Your task to perform on an android device: What's on my calendar tomorrow? Image 0: 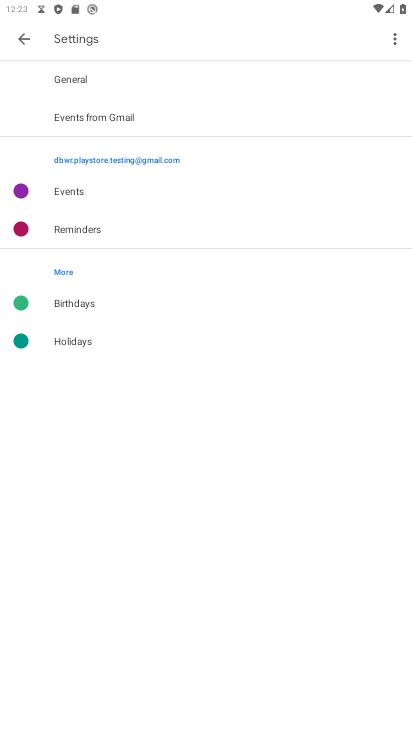
Step 0: press home button
Your task to perform on an android device: What's on my calendar tomorrow? Image 1: 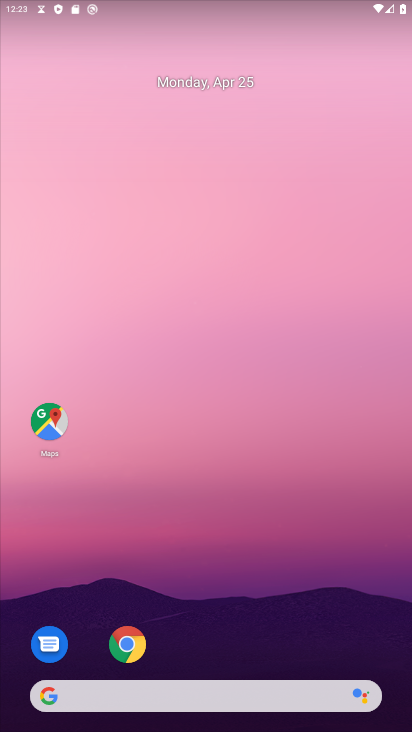
Step 1: drag from (313, 630) to (298, 8)
Your task to perform on an android device: What's on my calendar tomorrow? Image 2: 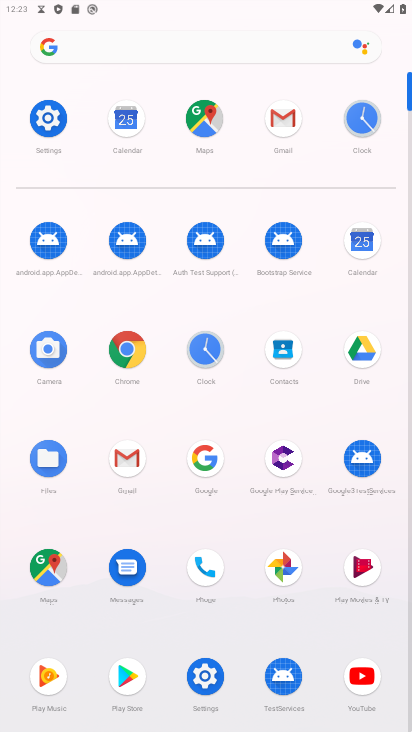
Step 2: click (359, 239)
Your task to perform on an android device: What's on my calendar tomorrow? Image 3: 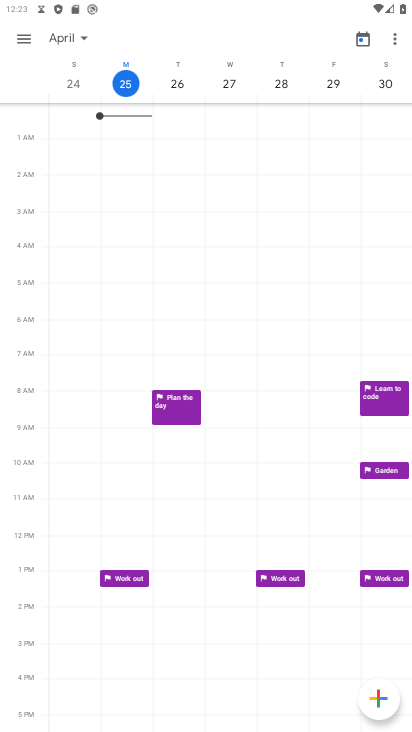
Step 3: click (81, 40)
Your task to perform on an android device: What's on my calendar tomorrow? Image 4: 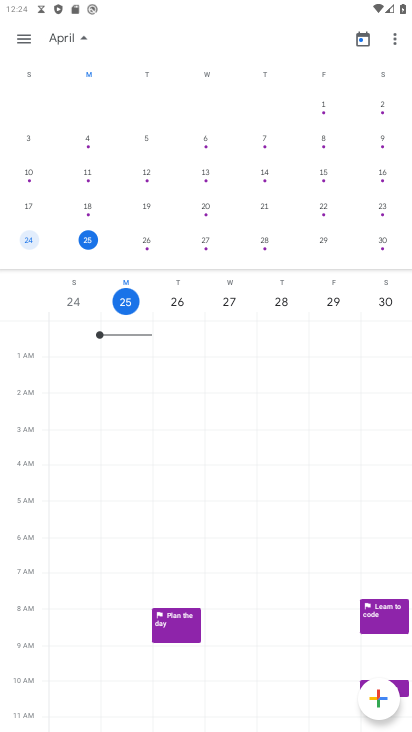
Step 4: click (92, 241)
Your task to perform on an android device: What's on my calendar tomorrow? Image 5: 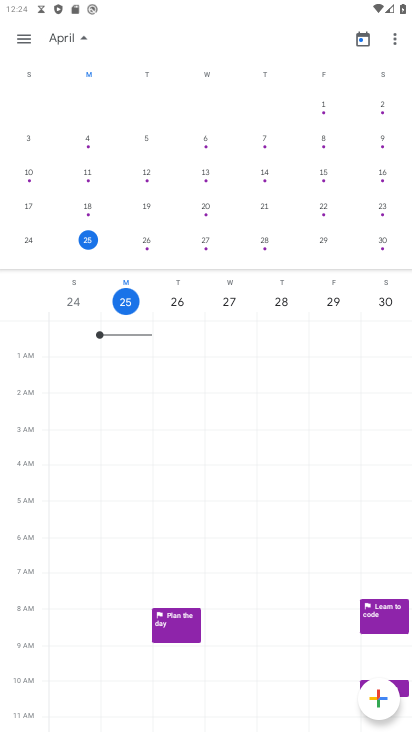
Step 5: click (22, 39)
Your task to perform on an android device: What's on my calendar tomorrow? Image 6: 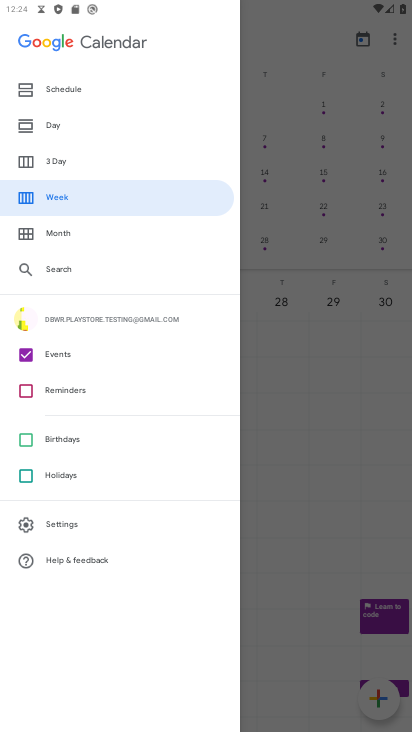
Step 6: click (59, 85)
Your task to perform on an android device: What's on my calendar tomorrow? Image 7: 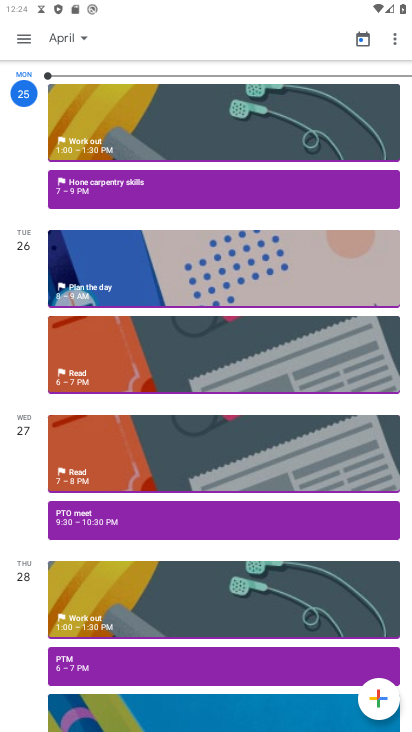
Step 7: click (121, 191)
Your task to perform on an android device: What's on my calendar tomorrow? Image 8: 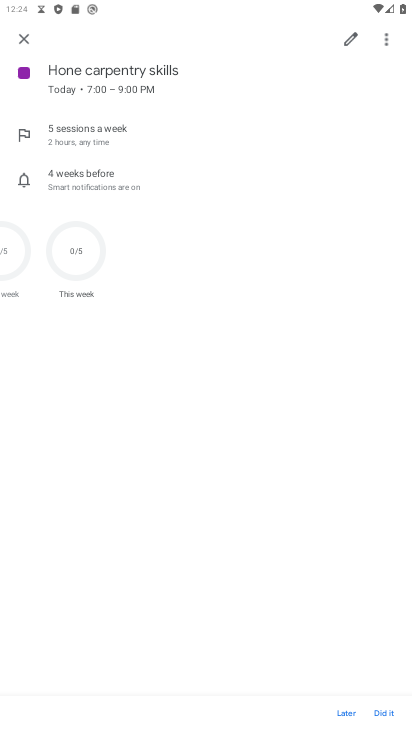
Step 8: task complete